Your task to perform on an android device: Go to display settings Image 0: 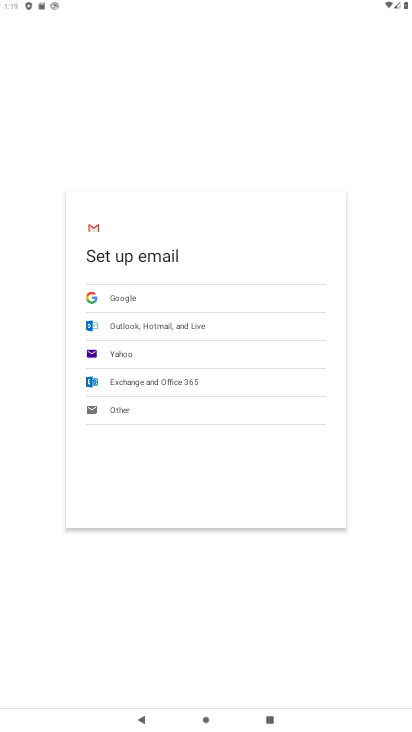
Step 0: press home button
Your task to perform on an android device: Go to display settings Image 1: 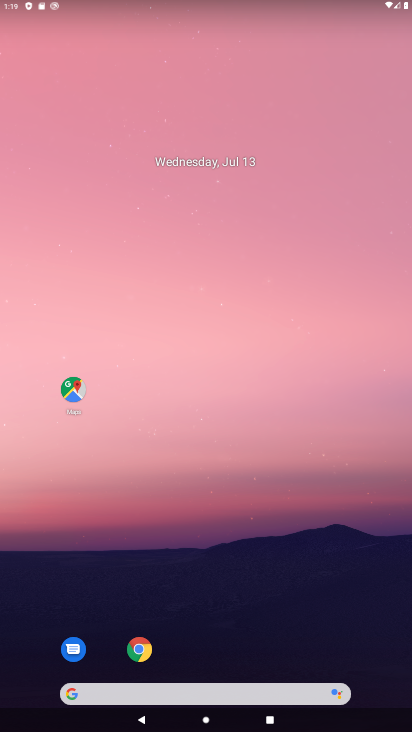
Step 1: drag from (248, 532) to (277, 231)
Your task to perform on an android device: Go to display settings Image 2: 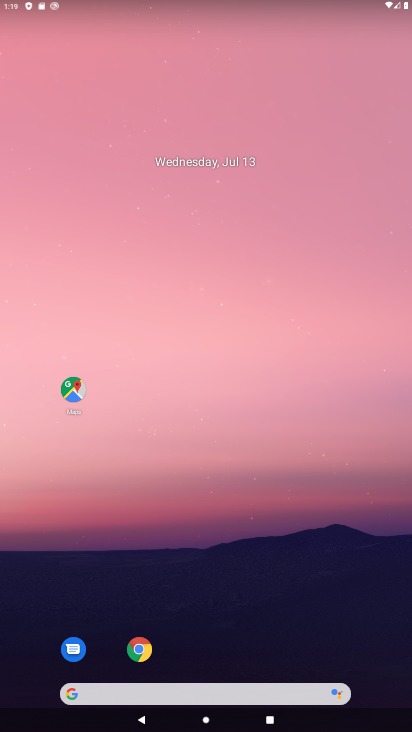
Step 2: drag from (180, 657) to (189, 165)
Your task to perform on an android device: Go to display settings Image 3: 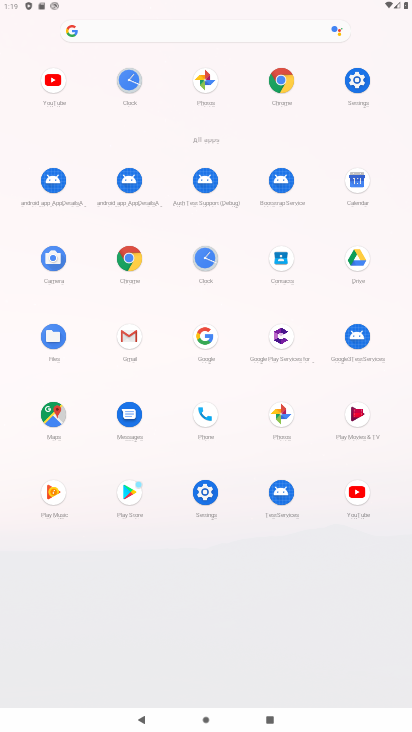
Step 3: click (198, 491)
Your task to perform on an android device: Go to display settings Image 4: 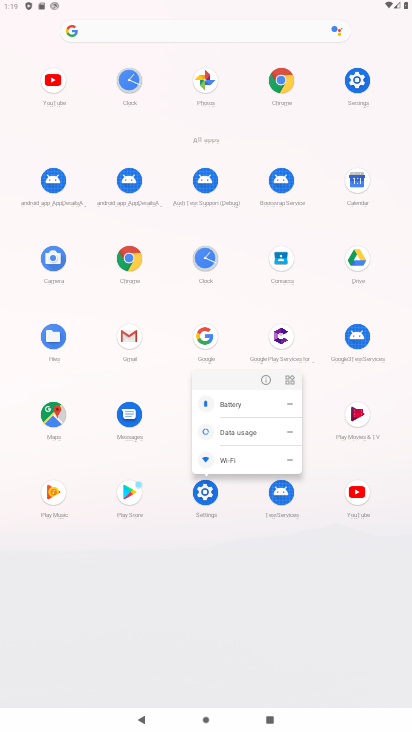
Step 4: click (195, 492)
Your task to perform on an android device: Go to display settings Image 5: 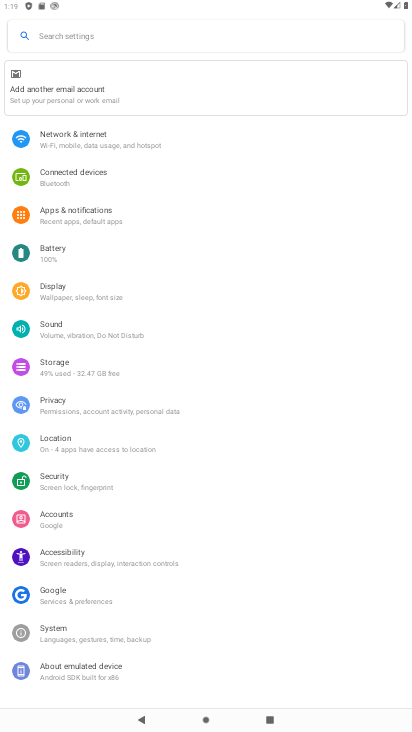
Step 5: click (73, 278)
Your task to perform on an android device: Go to display settings Image 6: 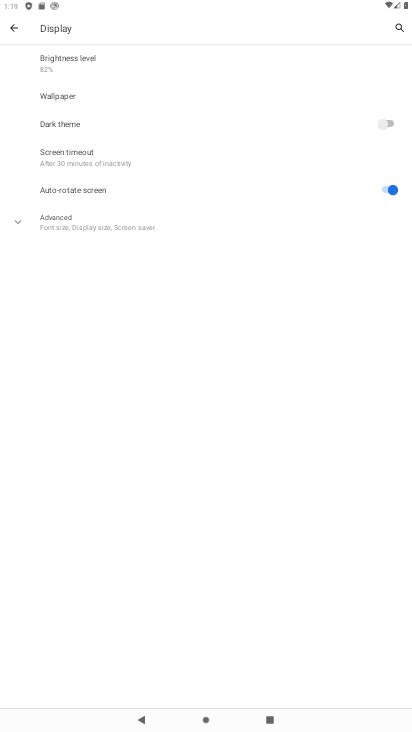
Step 6: task complete